Your task to perform on an android device: turn on bluetooth scan Image 0: 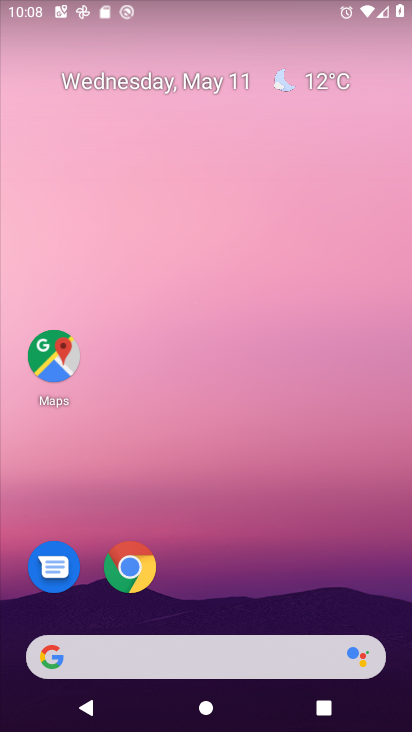
Step 0: drag from (239, 451) to (201, 112)
Your task to perform on an android device: turn on bluetooth scan Image 1: 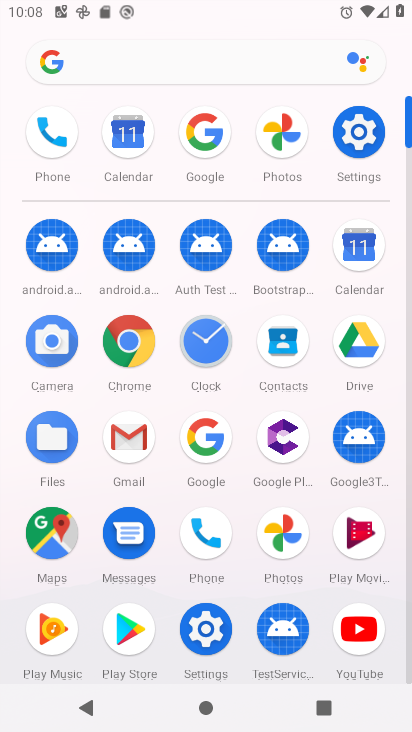
Step 1: click (356, 140)
Your task to perform on an android device: turn on bluetooth scan Image 2: 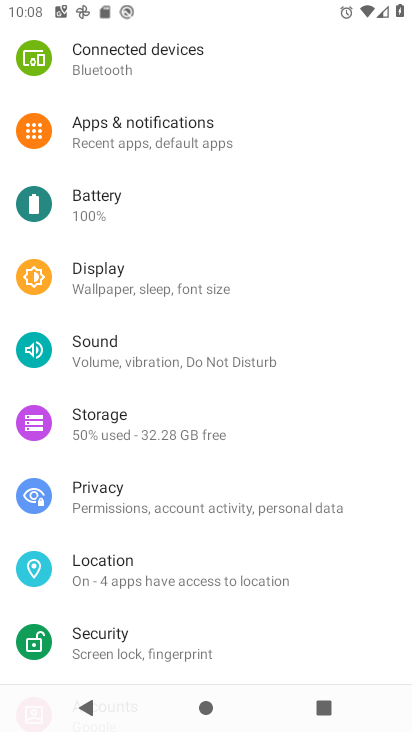
Step 2: click (129, 570)
Your task to perform on an android device: turn on bluetooth scan Image 3: 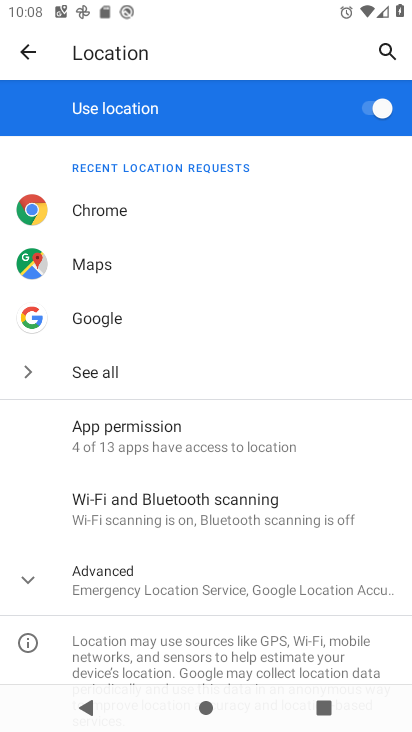
Step 3: click (184, 573)
Your task to perform on an android device: turn on bluetooth scan Image 4: 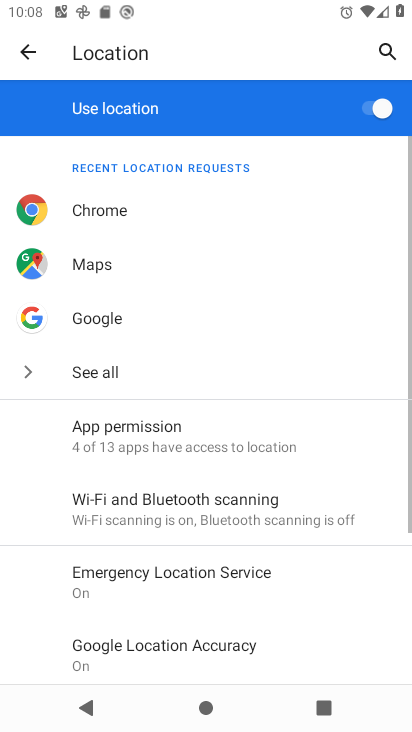
Step 4: click (201, 500)
Your task to perform on an android device: turn on bluetooth scan Image 5: 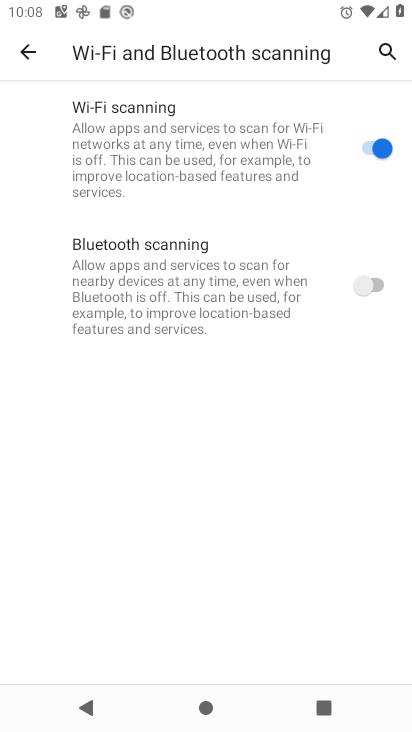
Step 5: click (368, 267)
Your task to perform on an android device: turn on bluetooth scan Image 6: 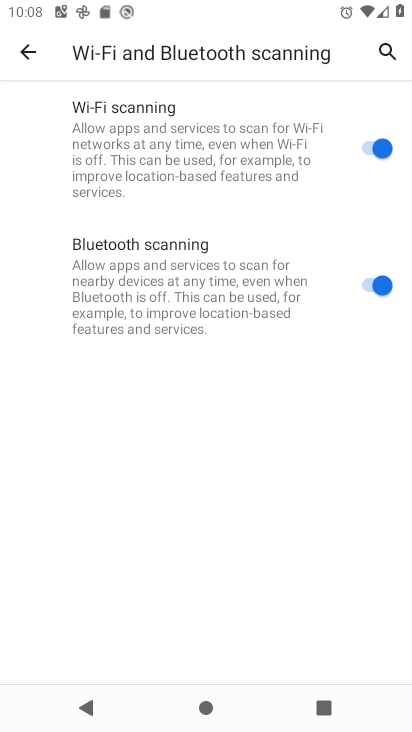
Step 6: task complete